Your task to perform on an android device: check the backup settings in the google photos Image 0: 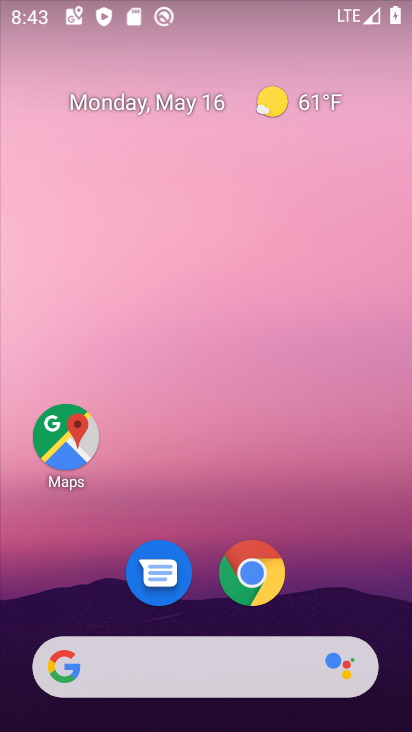
Step 0: drag from (203, 728) to (196, 192)
Your task to perform on an android device: check the backup settings in the google photos Image 1: 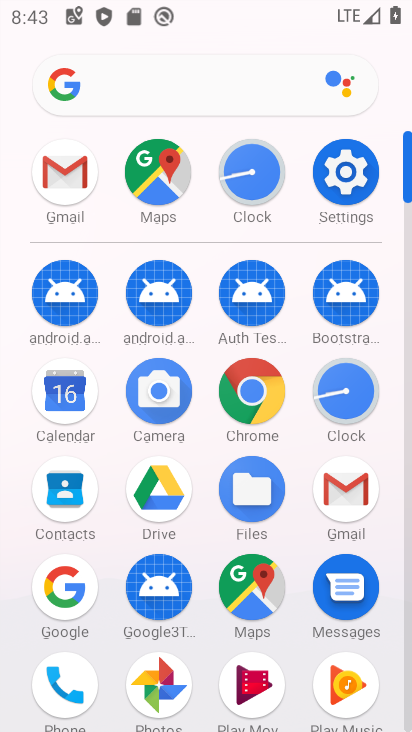
Step 1: click (159, 693)
Your task to perform on an android device: check the backup settings in the google photos Image 2: 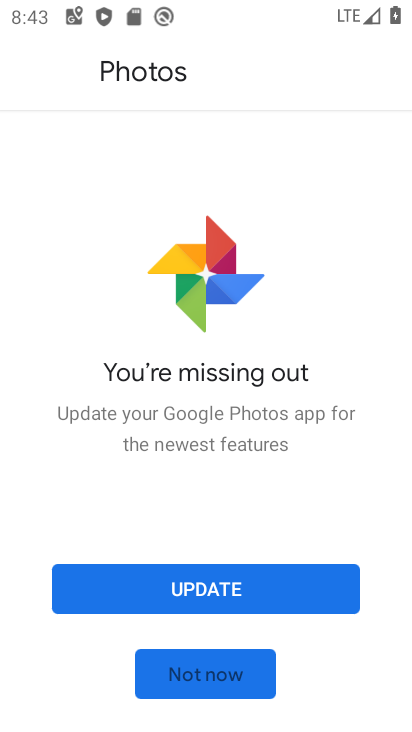
Step 2: task complete